Your task to perform on an android device: Go to internet settings Image 0: 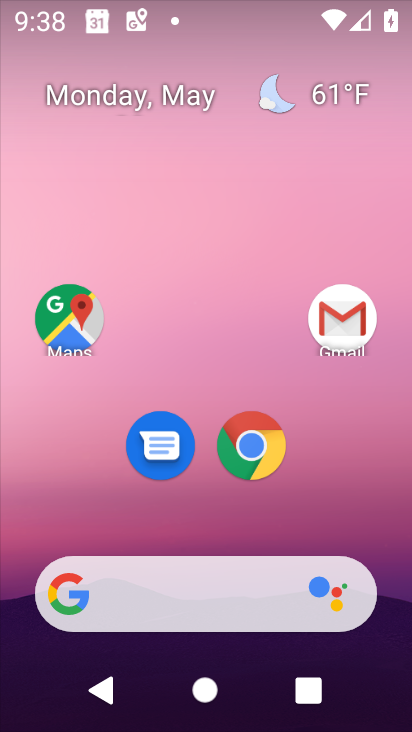
Step 0: drag from (360, 523) to (346, 121)
Your task to perform on an android device: Go to internet settings Image 1: 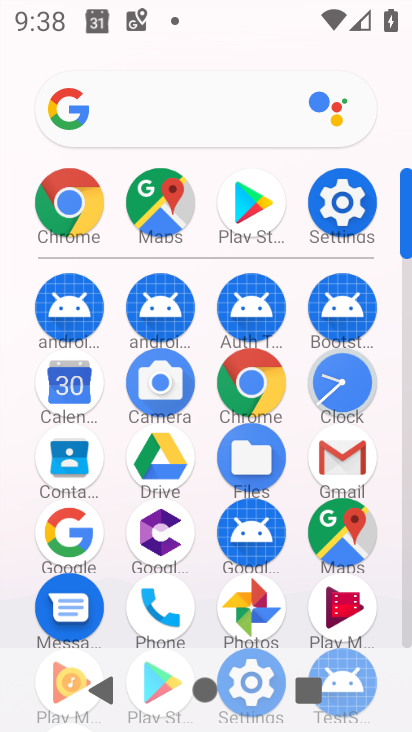
Step 1: click (354, 228)
Your task to perform on an android device: Go to internet settings Image 2: 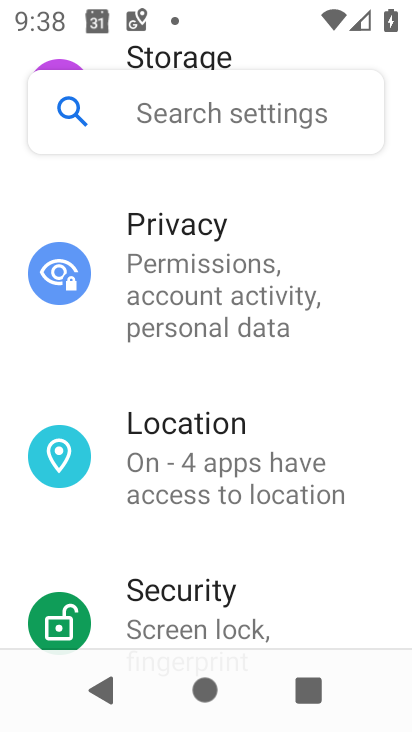
Step 2: drag from (347, 196) to (348, 291)
Your task to perform on an android device: Go to internet settings Image 3: 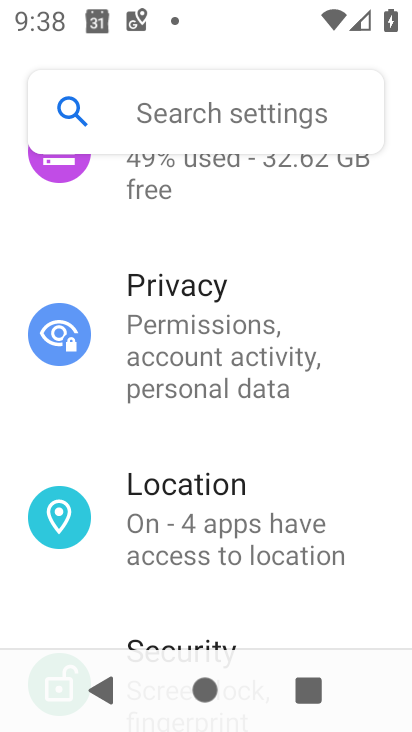
Step 3: drag from (358, 252) to (354, 365)
Your task to perform on an android device: Go to internet settings Image 4: 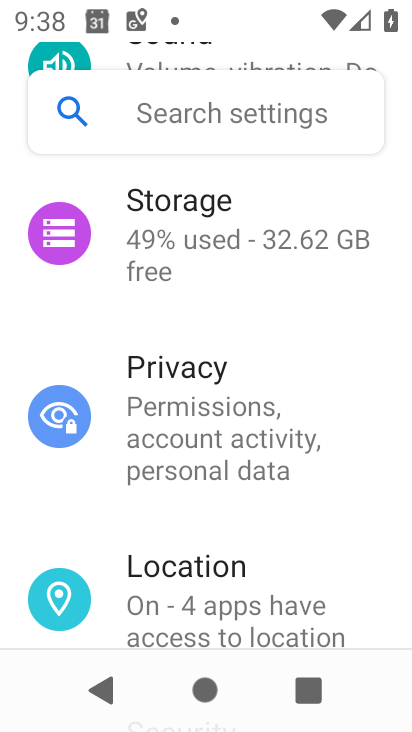
Step 4: drag from (358, 299) to (362, 388)
Your task to perform on an android device: Go to internet settings Image 5: 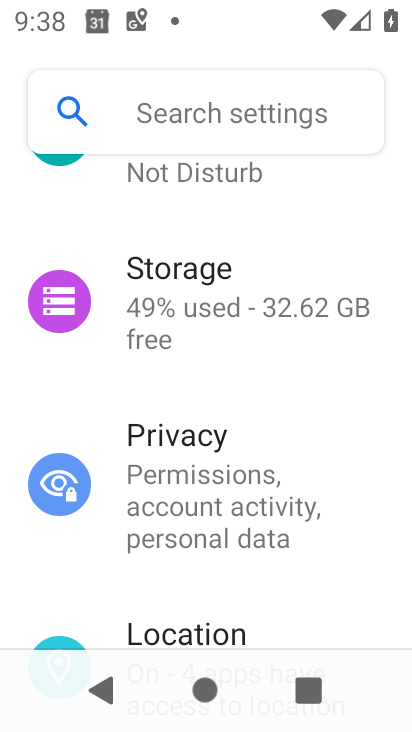
Step 5: drag from (349, 216) to (358, 358)
Your task to perform on an android device: Go to internet settings Image 6: 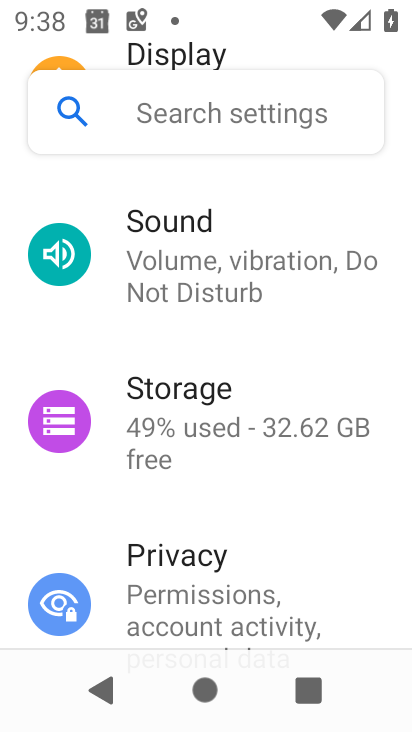
Step 6: drag from (370, 197) to (362, 343)
Your task to perform on an android device: Go to internet settings Image 7: 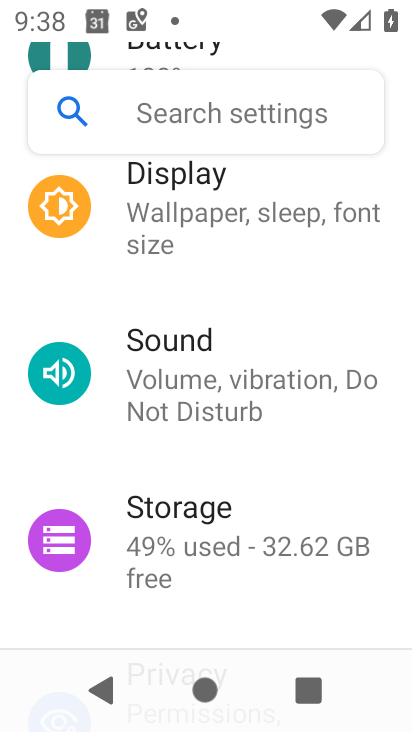
Step 7: drag from (369, 184) to (374, 304)
Your task to perform on an android device: Go to internet settings Image 8: 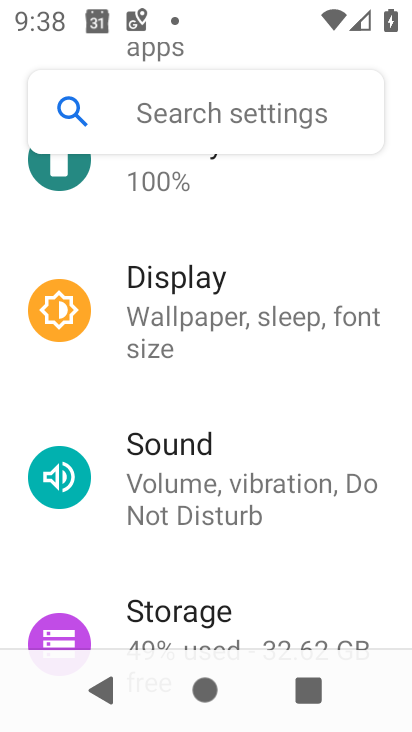
Step 8: drag from (359, 203) to (342, 304)
Your task to perform on an android device: Go to internet settings Image 9: 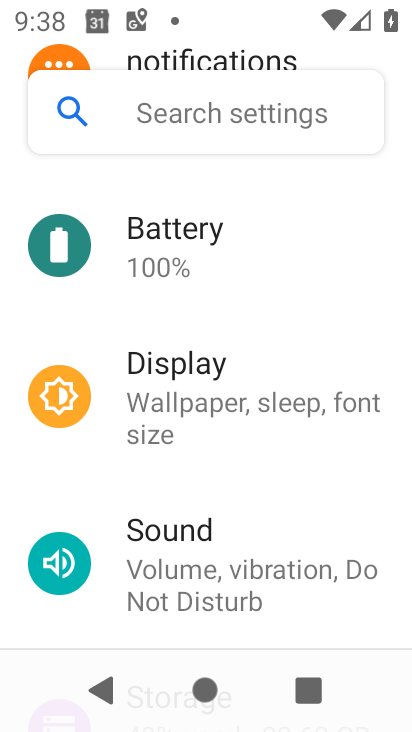
Step 9: drag from (335, 214) to (326, 329)
Your task to perform on an android device: Go to internet settings Image 10: 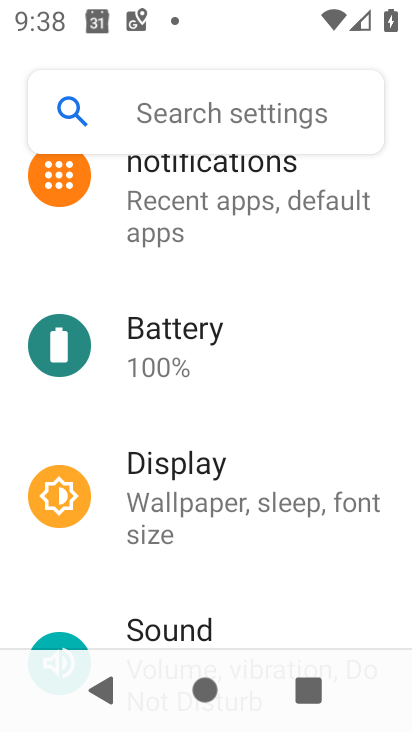
Step 10: drag from (336, 180) to (335, 304)
Your task to perform on an android device: Go to internet settings Image 11: 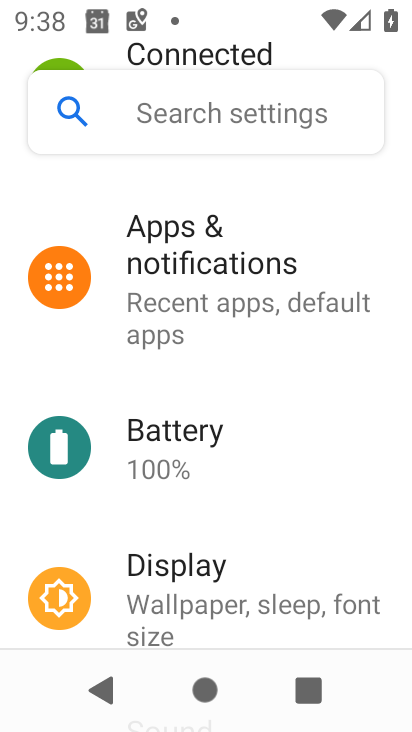
Step 11: drag from (342, 188) to (342, 284)
Your task to perform on an android device: Go to internet settings Image 12: 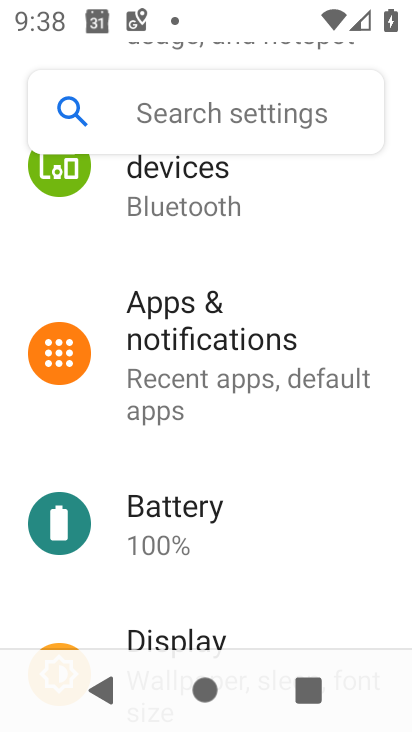
Step 12: drag from (343, 191) to (340, 280)
Your task to perform on an android device: Go to internet settings Image 13: 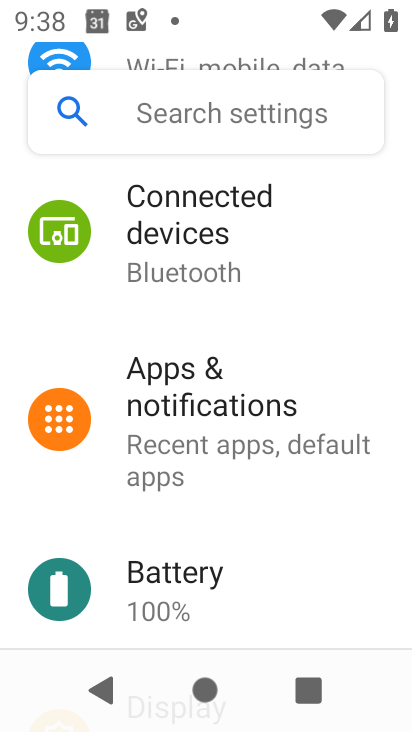
Step 13: drag from (340, 196) to (332, 303)
Your task to perform on an android device: Go to internet settings Image 14: 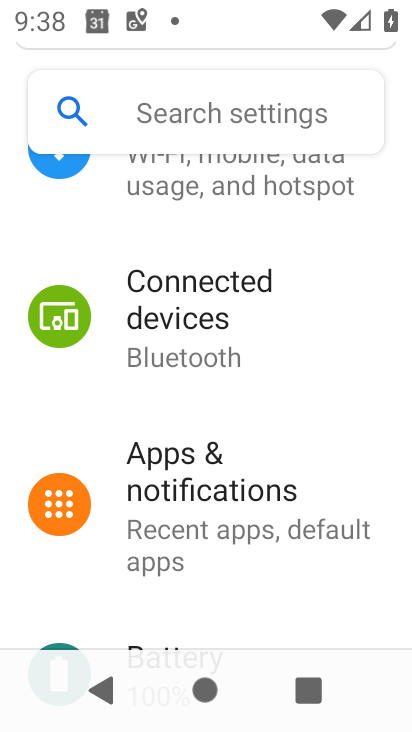
Step 14: drag from (339, 235) to (343, 324)
Your task to perform on an android device: Go to internet settings Image 15: 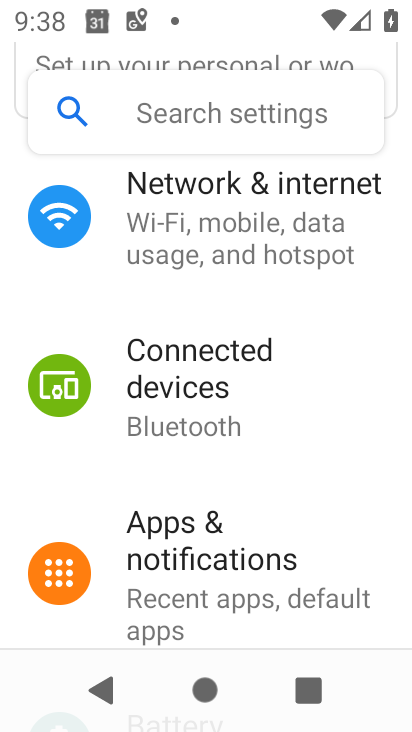
Step 15: click (321, 234)
Your task to perform on an android device: Go to internet settings Image 16: 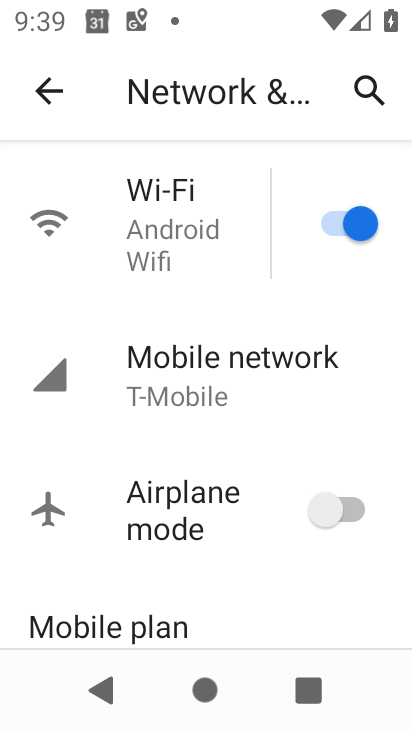
Step 16: task complete